Your task to perform on an android device: Go to calendar. Show me events next week Image 0: 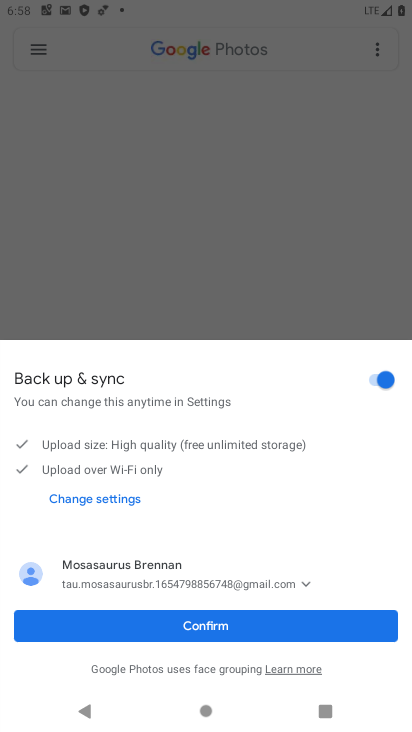
Step 0: click (193, 631)
Your task to perform on an android device: Go to calendar. Show me events next week Image 1: 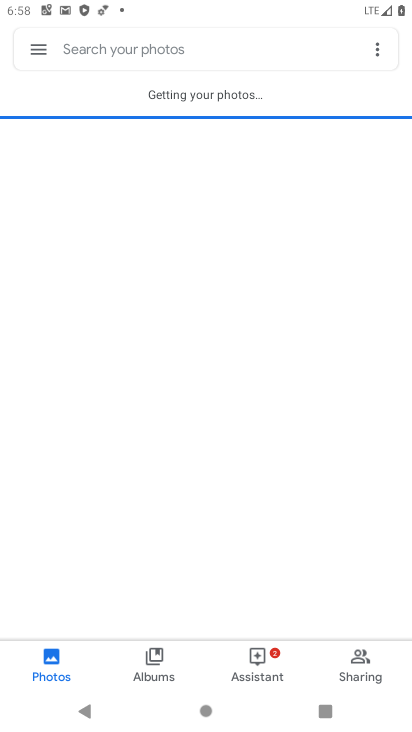
Step 1: press home button
Your task to perform on an android device: Go to calendar. Show me events next week Image 2: 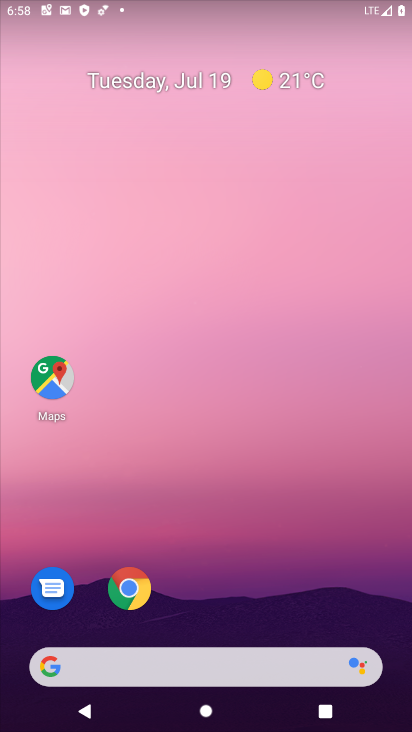
Step 2: drag from (259, 589) to (250, 162)
Your task to perform on an android device: Go to calendar. Show me events next week Image 3: 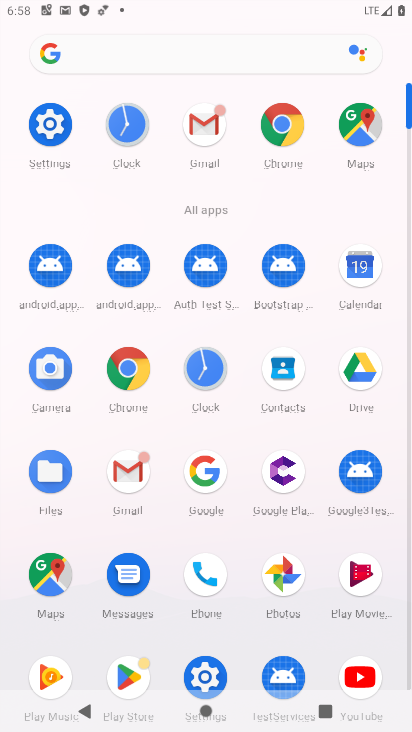
Step 3: click (363, 280)
Your task to perform on an android device: Go to calendar. Show me events next week Image 4: 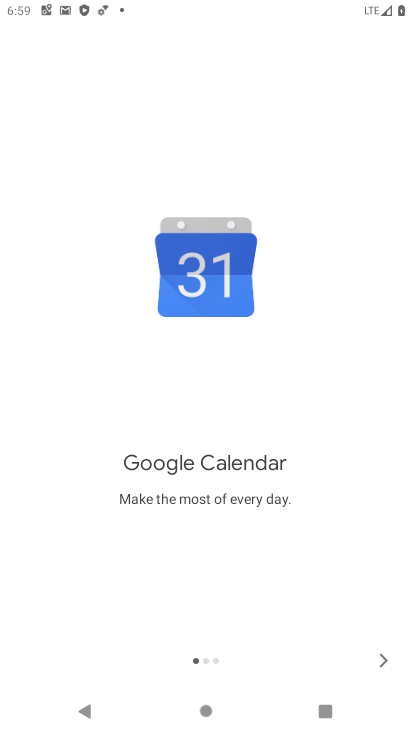
Step 4: click (376, 652)
Your task to perform on an android device: Go to calendar. Show me events next week Image 5: 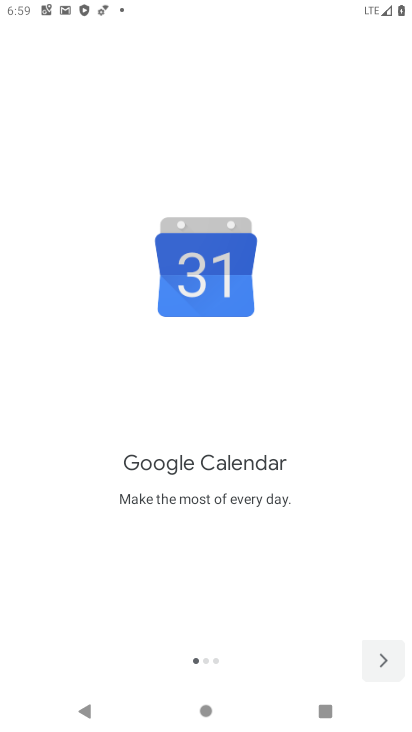
Step 5: click (377, 651)
Your task to perform on an android device: Go to calendar. Show me events next week Image 6: 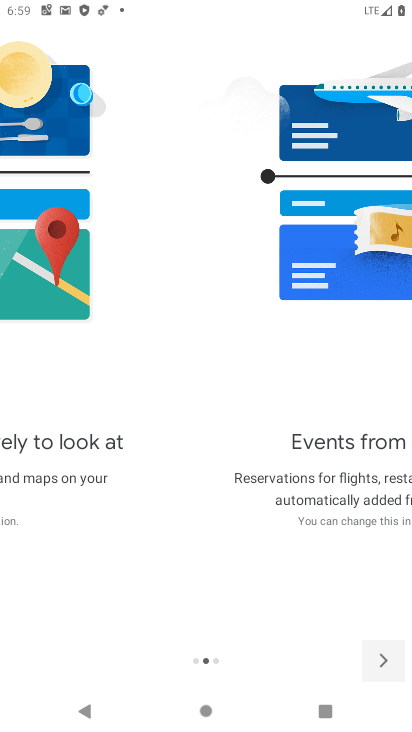
Step 6: click (377, 650)
Your task to perform on an android device: Go to calendar. Show me events next week Image 7: 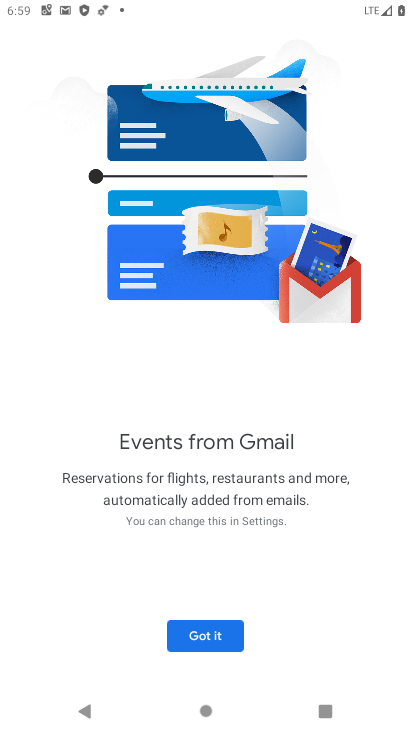
Step 7: click (213, 635)
Your task to perform on an android device: Go to calendar. Show me events next week Image 8: 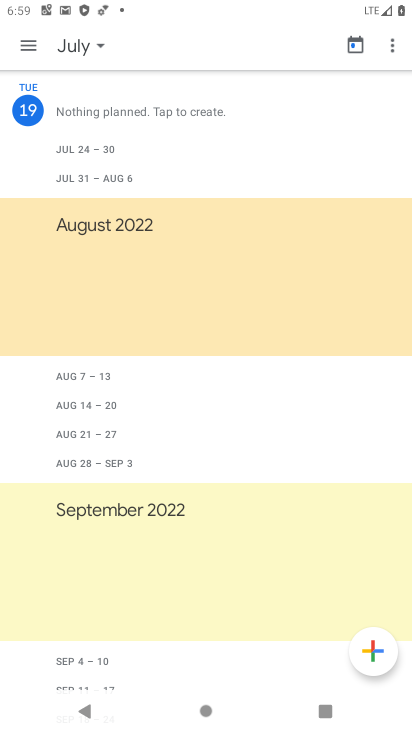
Step 8: click (37, 50)
Your task to perform on an android device: Go to calendar. Show me events next week Image 9: 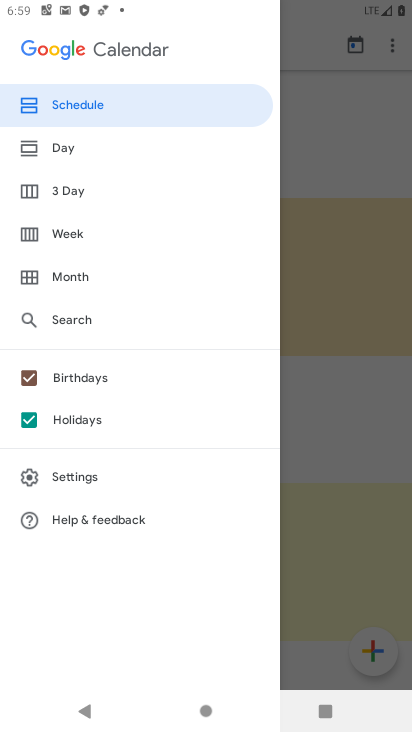
Step 9: drag from (142, 581) to (150, 394)
Your task to perform on an android device: Go to calendar. Show me events next week Image 10: 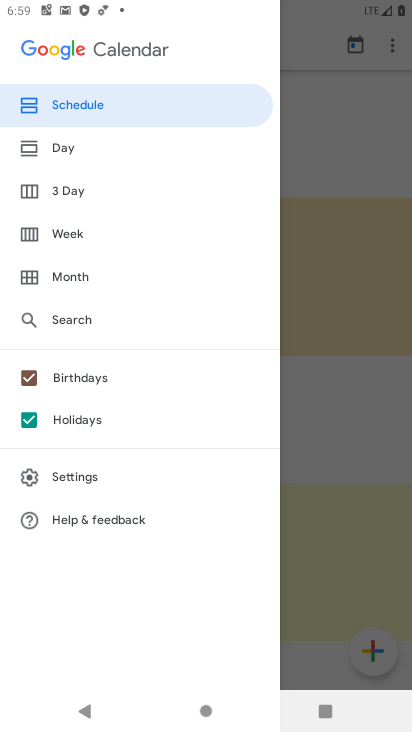
Step 10: drag from (177, 207) to (191, 480)
Your task to perform on an android device: Go to calendar. Show me events next week Image 11: 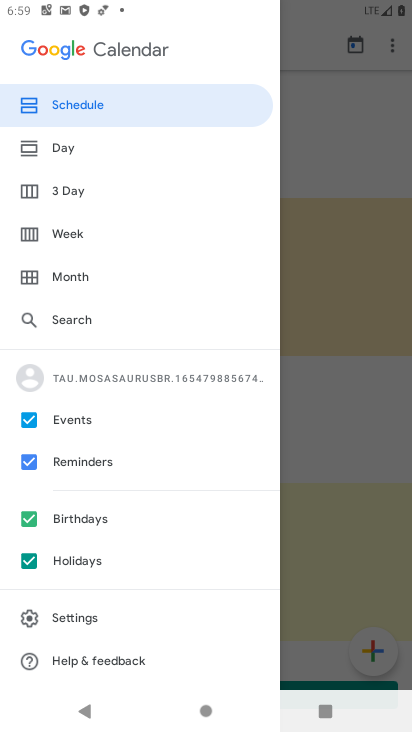
Step 11: drag from (190, 517) to (171, 217)
Your task to perform on an android device: Go to calendar. Show me events next week Image 12: 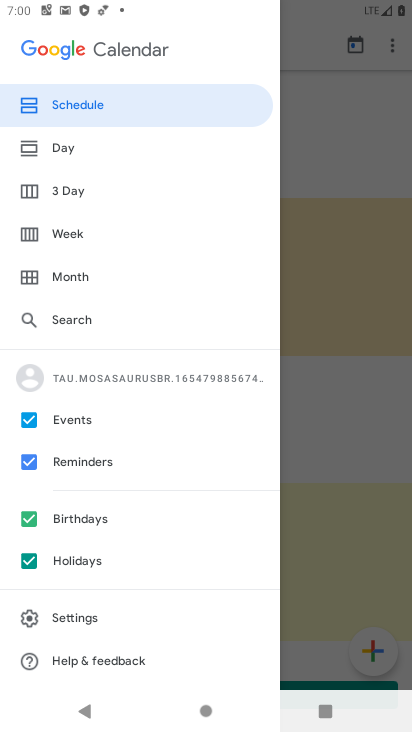
Step 12: click (93, 238)
Your task to perform on an android device: Go to calendar. Show me events next week Image 13: 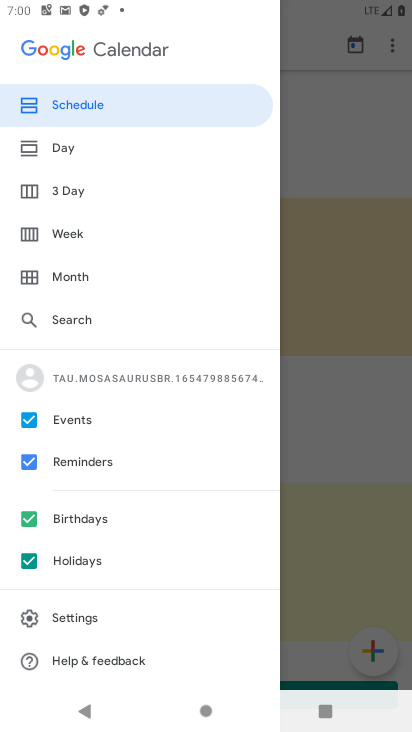
Step 13: click (73, 235)
Your task to perform on an android device: Go to calendar. Show me events next week Image 14: 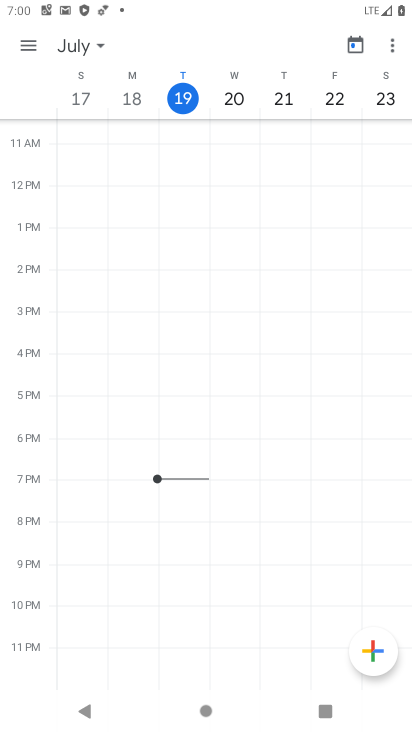
Step 14: task complete